Your task to perform on an android device: Search for vegetarian restaurants on Maps Image 0: 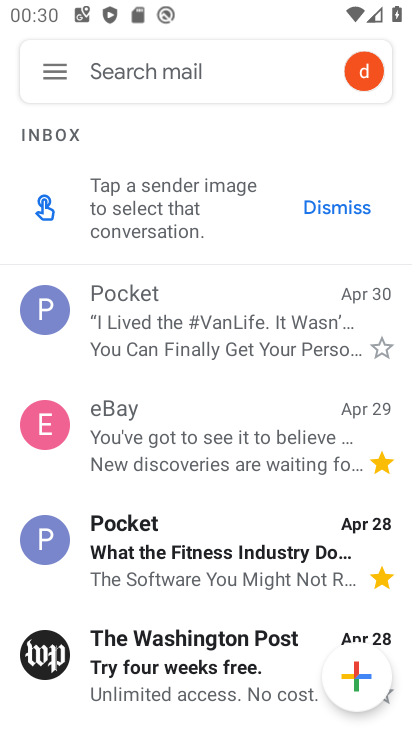
Step 0: press home button
Your task to perform on an android device: Search for vegetarian restaurants on Maps Image 1: 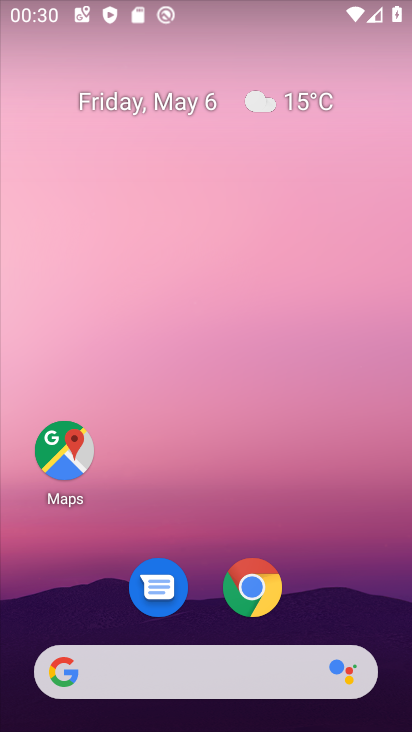
Step 1: click (56, 439)
Your task to perform on an android device: Search for vegetarian restaurants on Maps Image 2: 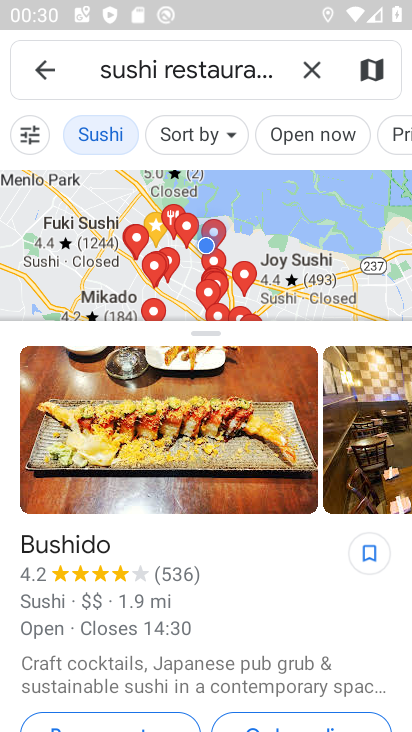
Step 2: click (309, 64)
Your task to perform on an android device: Search for vegetarian restaurants on Maps Image 3: 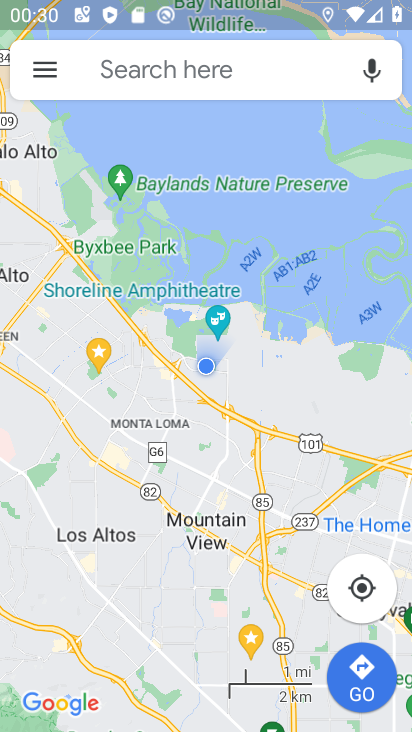
Step 3: click (146, 65)
Your task to perform on an android device: Search for vegetarian restaurants on Maps Image 4: 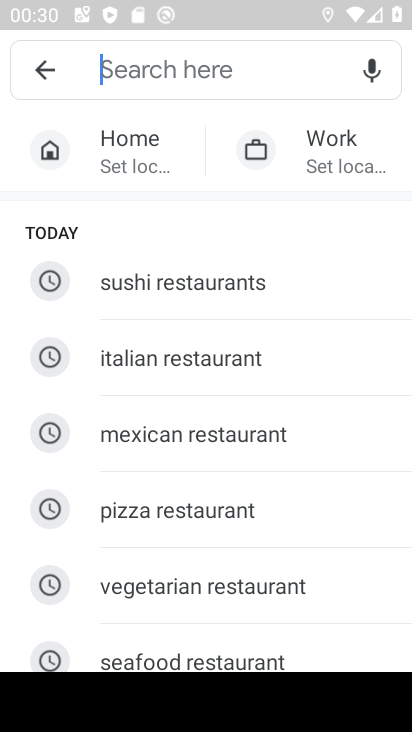
Step 4: type "vegetarian restaurants"
Your task to perform on an android device: Search for vegetarian restaurants on Maps Image 5: 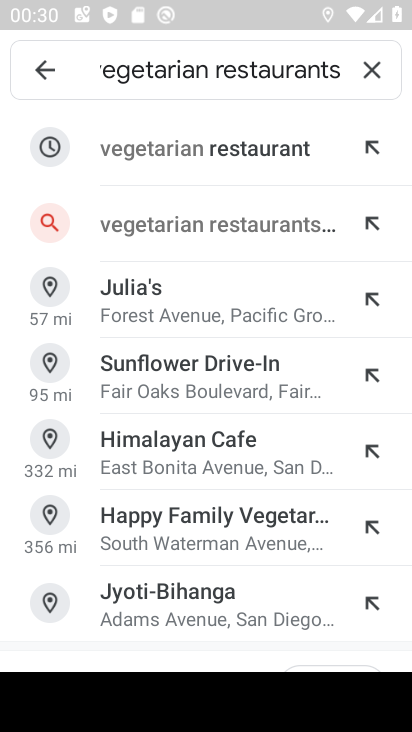
Step 5: click (213, 146)
Your task to perform on an android device: Search for vegetarian restaurants on Maps Image 6: 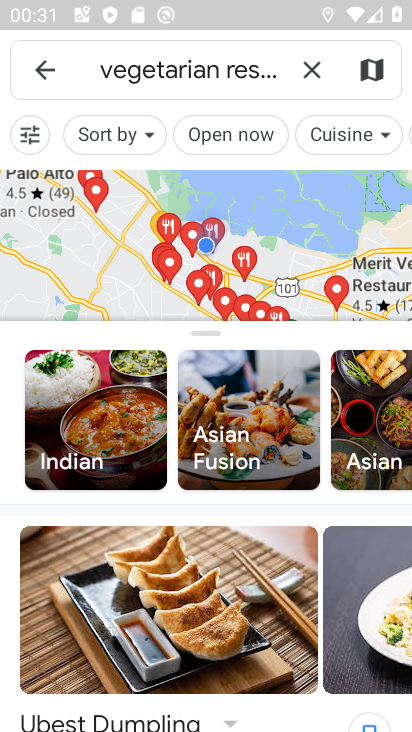
Step 6: task complete